Your task to perform on an android device: Open Wikipedia Image 0: 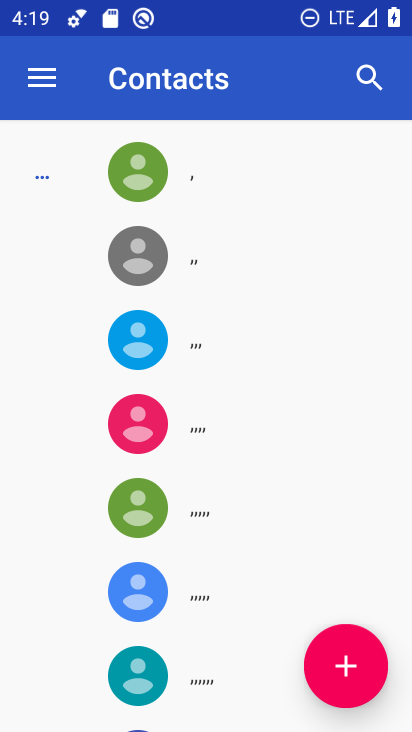
Step 0: press home button
Your task to perform on an android device: Open Wikipedia Image 1: 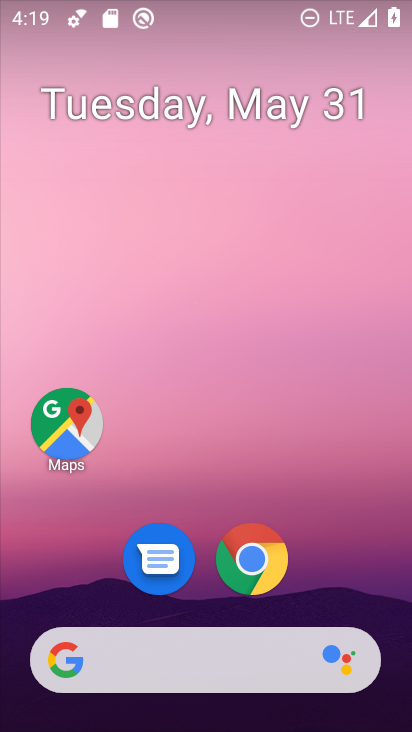
Step 1: click (251, 559)
Your task to perform on an android device: Open Wikipedia Image 2: 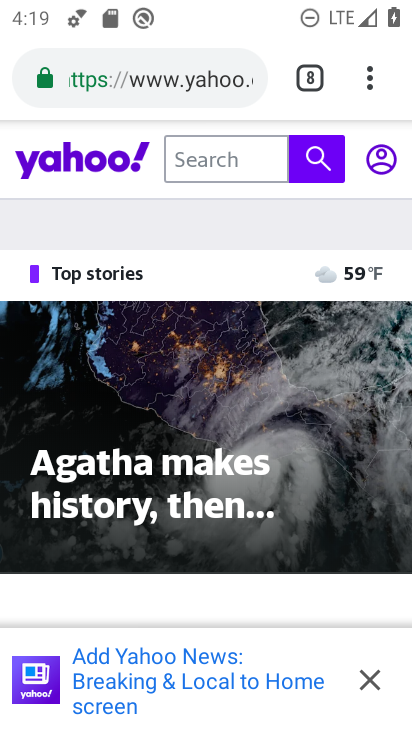
Step 2: click (369, 83)
Your task to perform on an android device: Open Wikipedia Image 3: 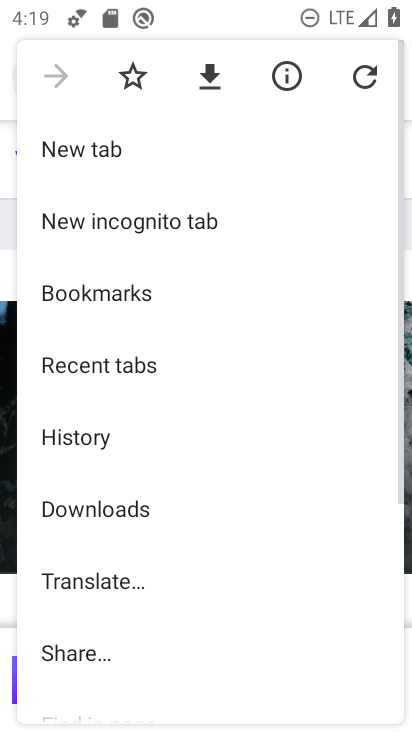
Step 3: click (79, 149)
Your task to perform on an android device: Open Wikipedia Image 4: 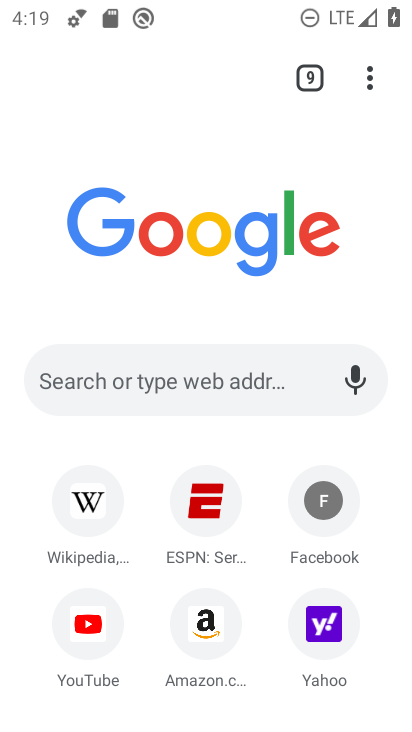
Step 4: click (80, 508)
Your task to perform on an android device: Open Wikipedia Image 5: 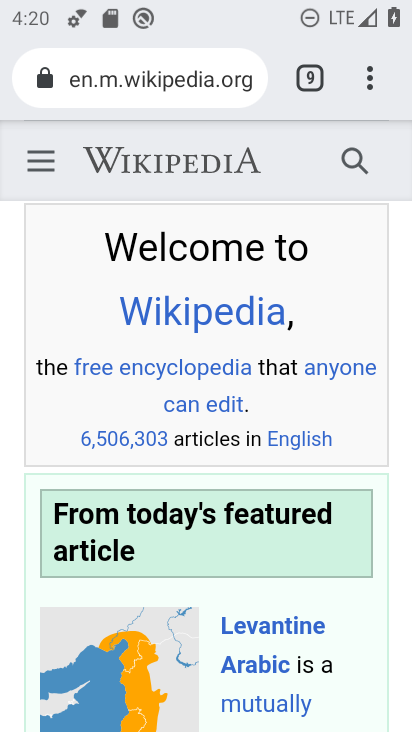
Step 5: task complete